Your task to perform on an android device: turn pop-ups off in chrome Image 0: 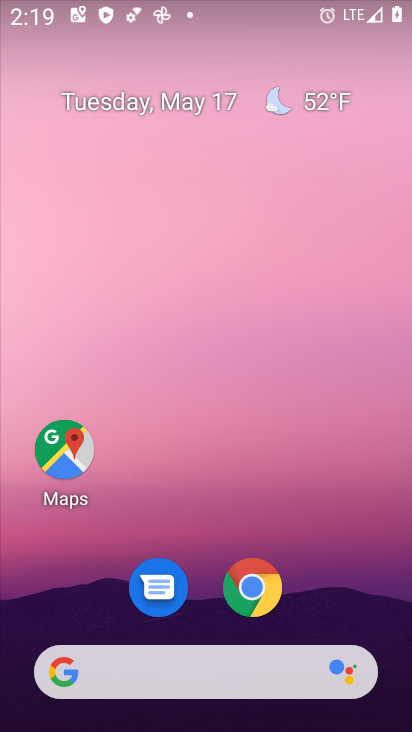
Step 0: click (219, 600)
Your task to perform on an android device: turn pop-ups off in chrome Image 1: 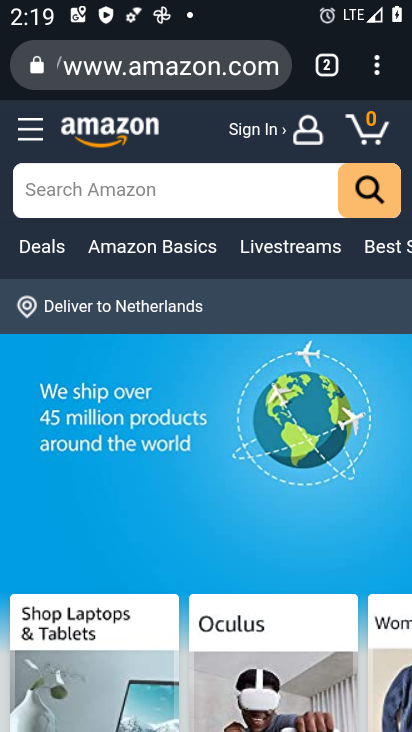
Step 1: click (387, 72)
Your task to perform on an android device: turn pop-ups off in chrome Image 2: 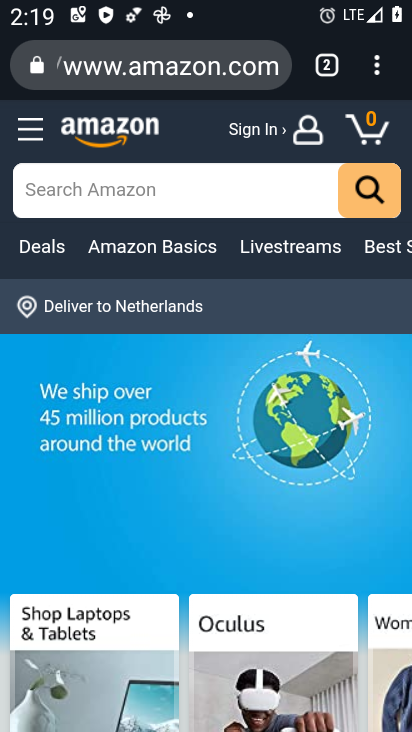
Step 2: click (364, 72)
Your task to perform on an android device: turn pop-ups off in chrome Image 3: 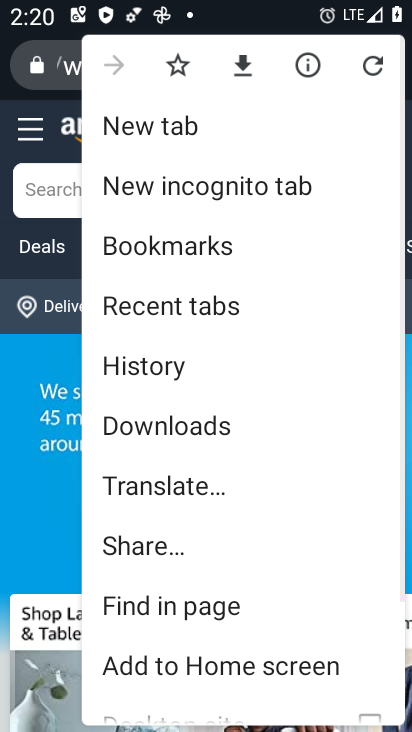
Step 3: drag from (212, 568) to (255, 265)
Your task to perform on an android device: turn pop-ups off in chrome Image 4: 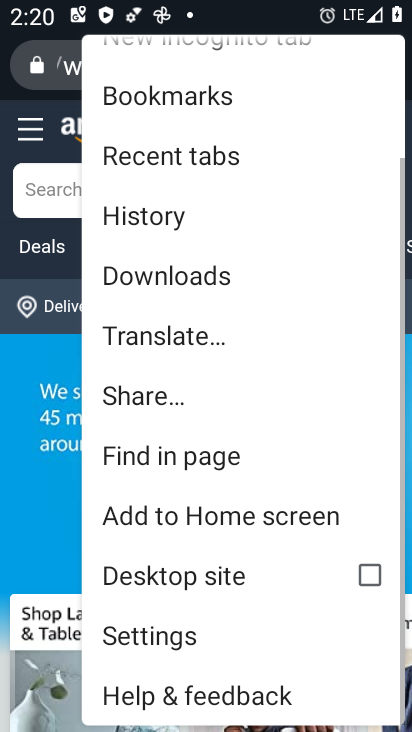
Step 4: click (209, 614)
Your task to perform on an android device: turn pop-ups off in chrome Image 5: 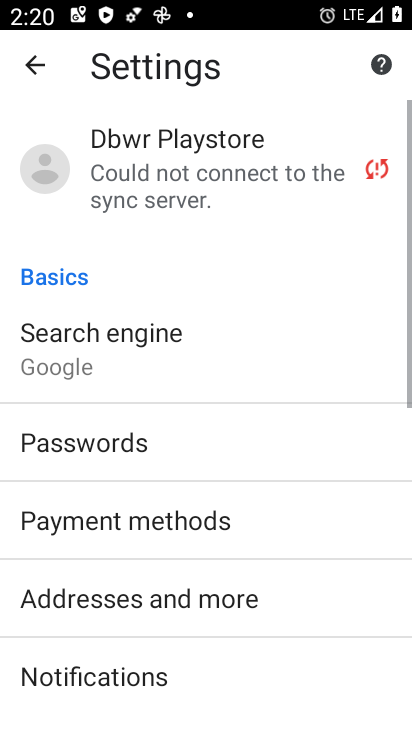
Step 5: drag from (169, 636) to (211, 251)
Your task to perform on an android device: turn pop-ups off in chrome Image 6: 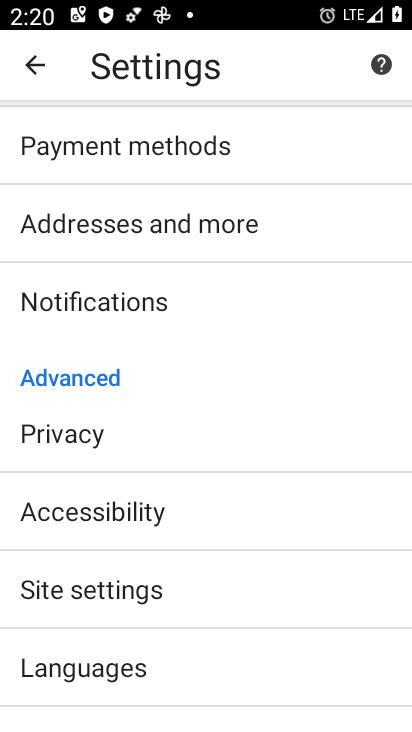
Step 6: click (159, 612)
Your task to perform on an android device: turn pop-ups off in chrome Image 7: 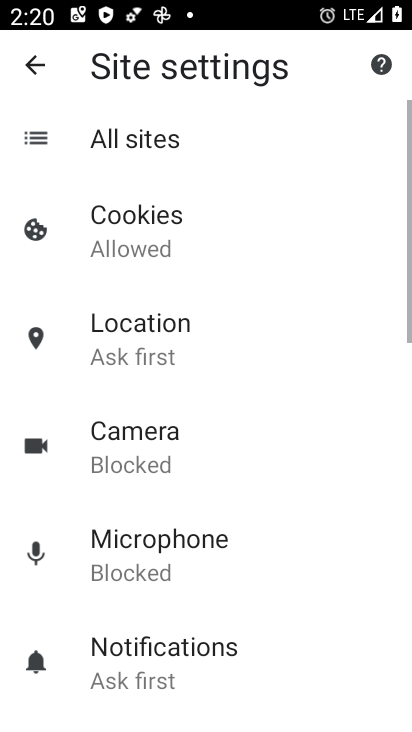
Step 7: drag from (153, 643) to (180, 301)
Your task to perform on an android device: turn pop-ups off in chrome Image 8: 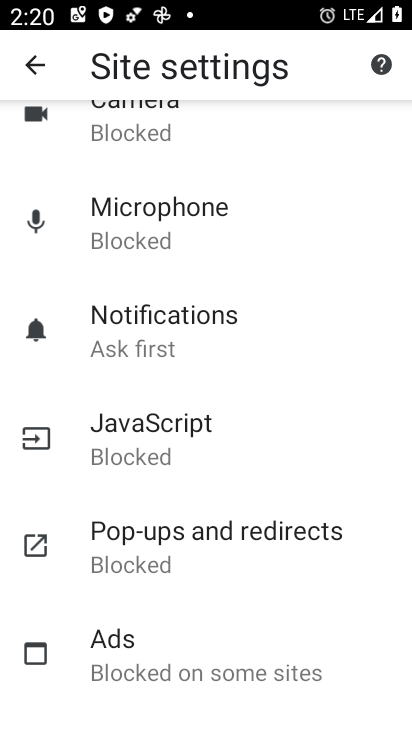
Step 8: click (180, 559)
Your task to perform on an android device: turn pop-ups off in chrome Image 9: 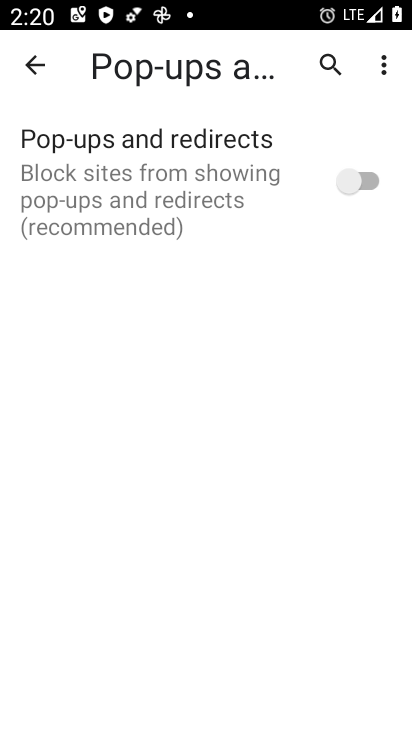
Step 9: click (339, 214)
Your task to perform on an android device: turn pop-ups off in chrome Image 10: 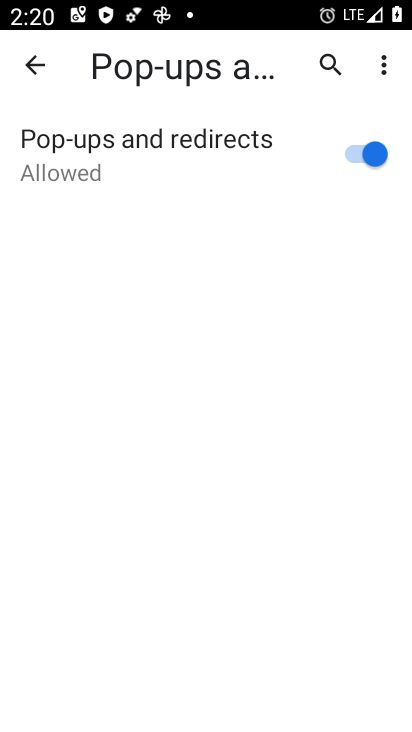
Step 10: click (388, 162)
Your task to perform on an android device: turn pop-ups off in chrome Image 11: 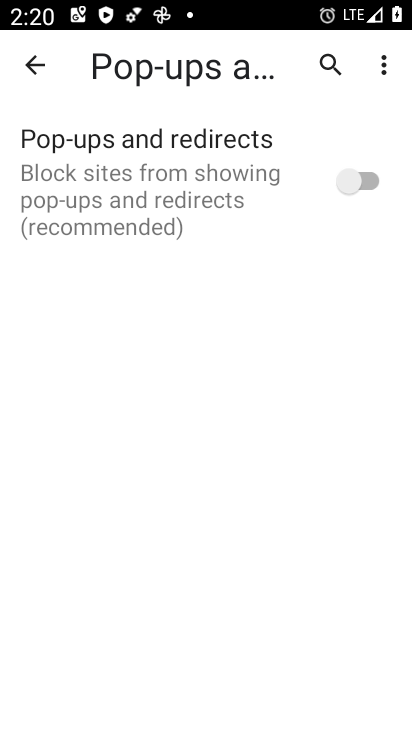
Step 11: task complete